Your task to perform on an android device: allow cookies in the chrome app Image 0: 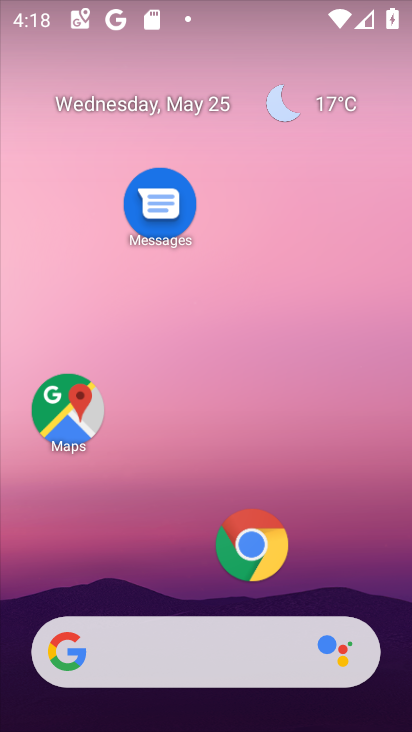
Step 0: click (252, 539)
Your task to perform on an android device: allow cookies in the chrome app Image 1: 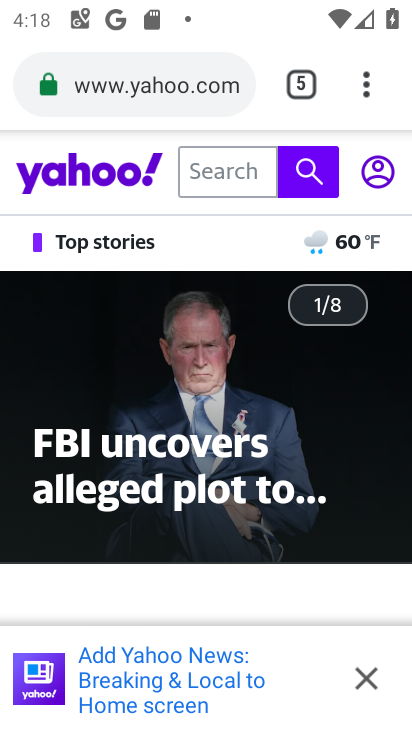
Step 1: click (376, 91)
Your task to perform on an android device: allow cookies in the chrome app Image 2: 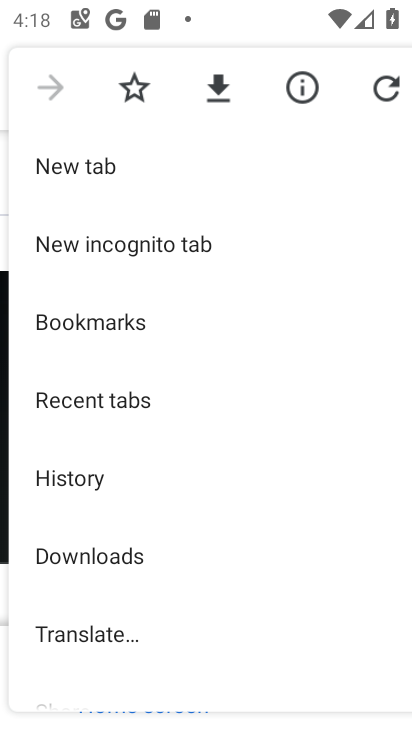
Step 2: click (106, 476)
Your task to perform on an android device: allow cookies in the chrome app Image 3: 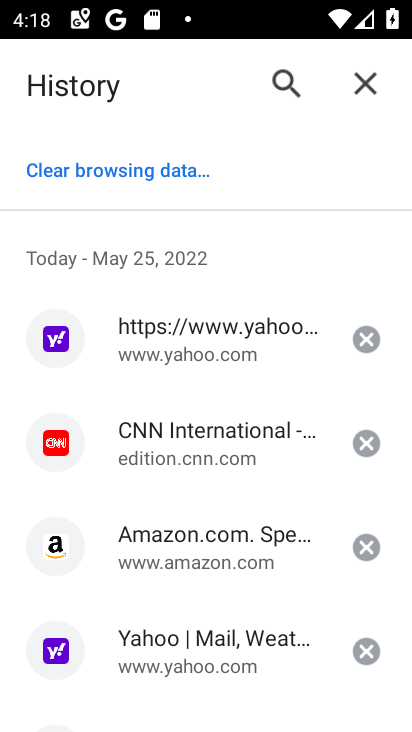
Step 3: click (357, 80)
Your task to perform on an android device: allow cookies in the chrome app Image 4: 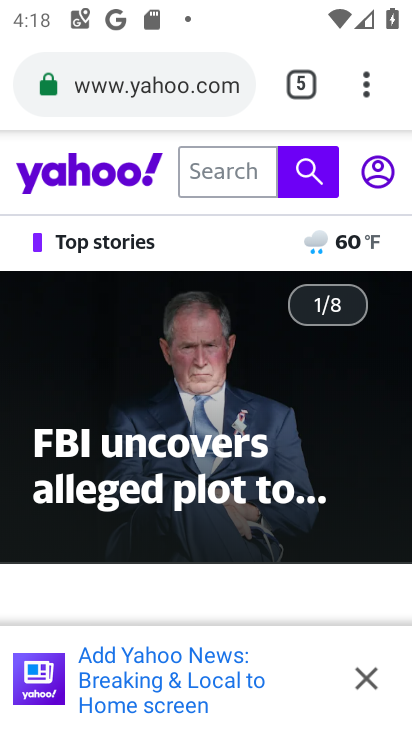
Step 4: click (372, 65)
Your task to perform on an android device: allow cookies in the chrome app Image 5: 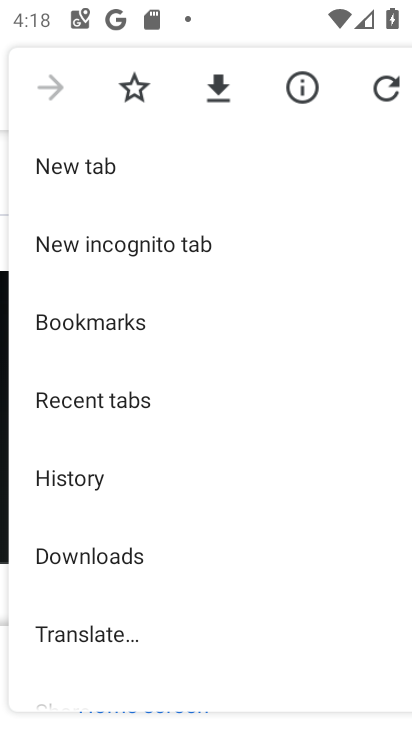
Step 5: drag from (190, 597) to (187, 222)
Your task to perform on an android device: allow cookies in the chrome app Image 6: 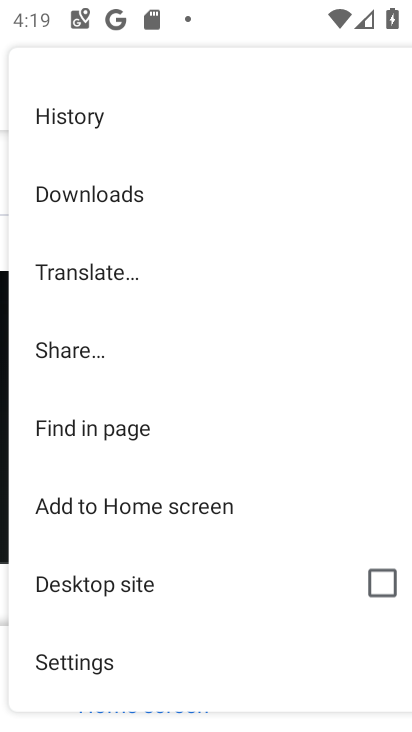
Step 6: click (76, 656)
Your task to perform on an android device: allow cookies in the chrome app Image 7: 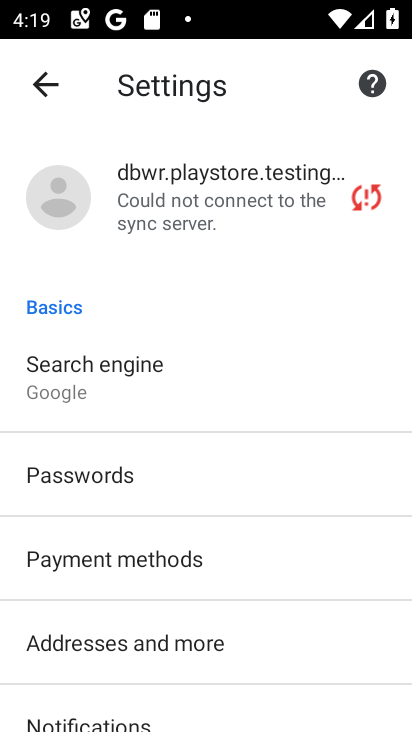
Step 7: drag from (243, 631) to (284, 133)
Your task to perform on an android device: allow cookies in the chrome app Image 8: 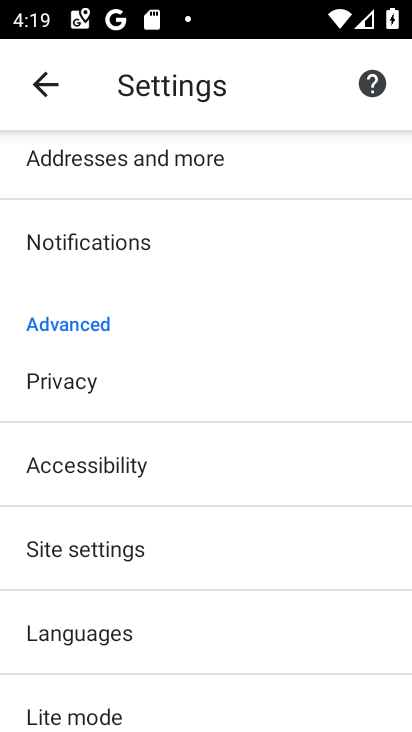
Step 8: click (145, 548)
Your task to perform on an android device: allow cookies in the chrome app Image 9: 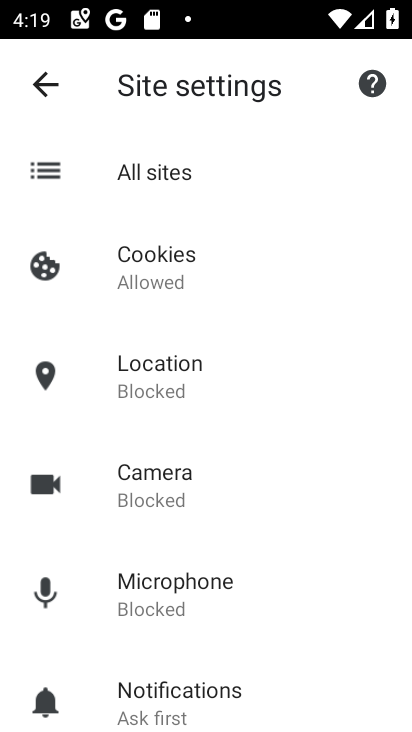
Step 9: click (183, 278)
Your task to perform on an android device: allow cookies in the chrome app Image 10: 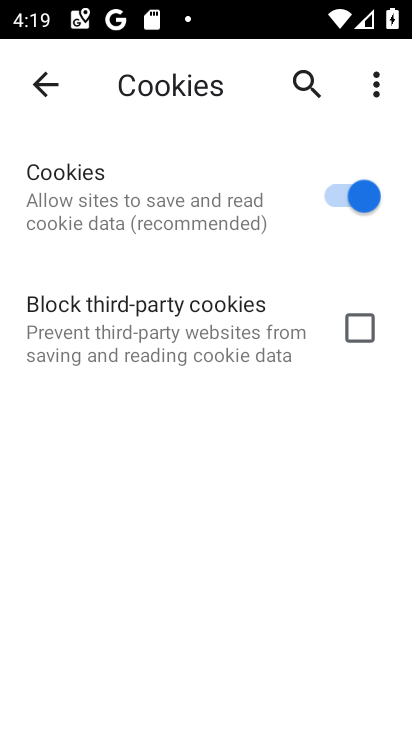
Step 10: task complete